Your task to perform on an android device: Clear the cart on walmart. Search for "bose soundlink mini" on walmart, select the first entry, and add it to the cart. Image 0: 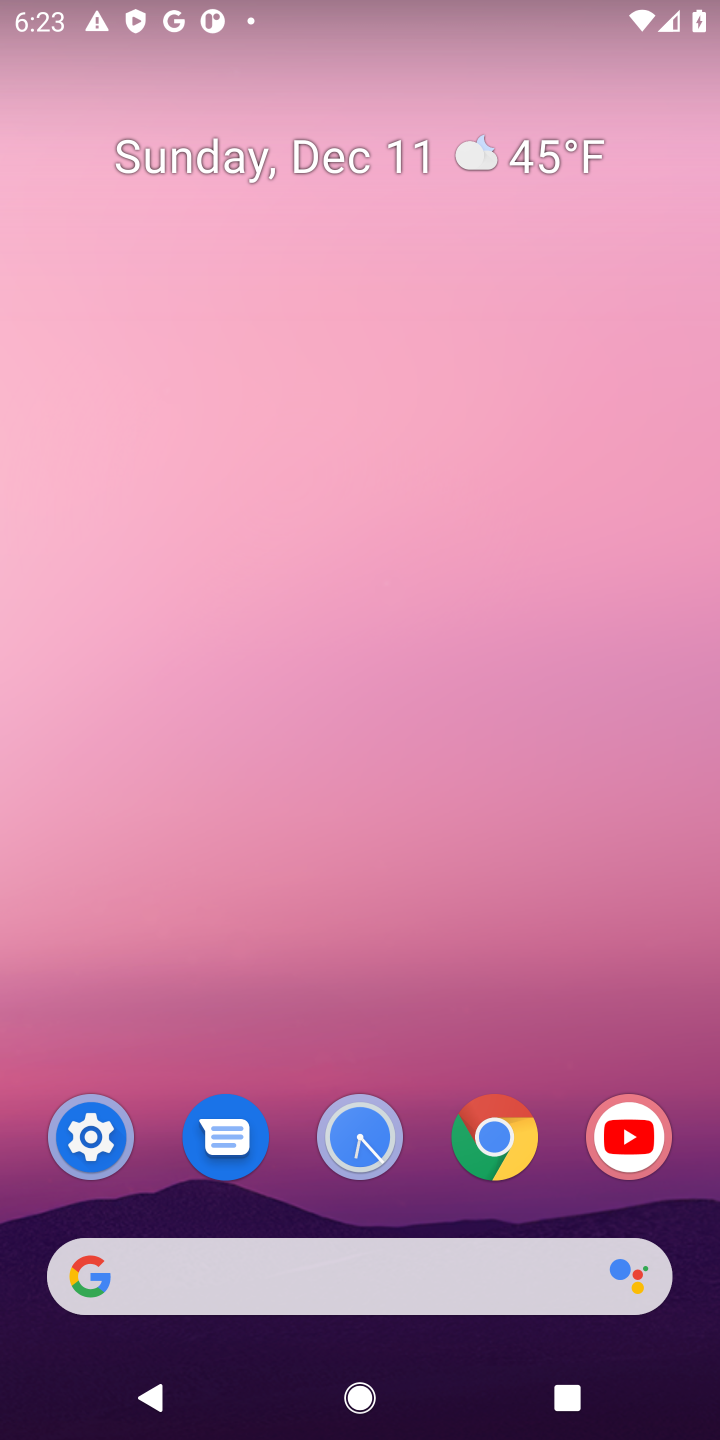
Step 0: click (505, 1153)
Your task to perform on an android device: Clear the cart on walmart. Search for "bose soundlink mini" on walmart, select the first entry, and add it to the cart. Image 1: 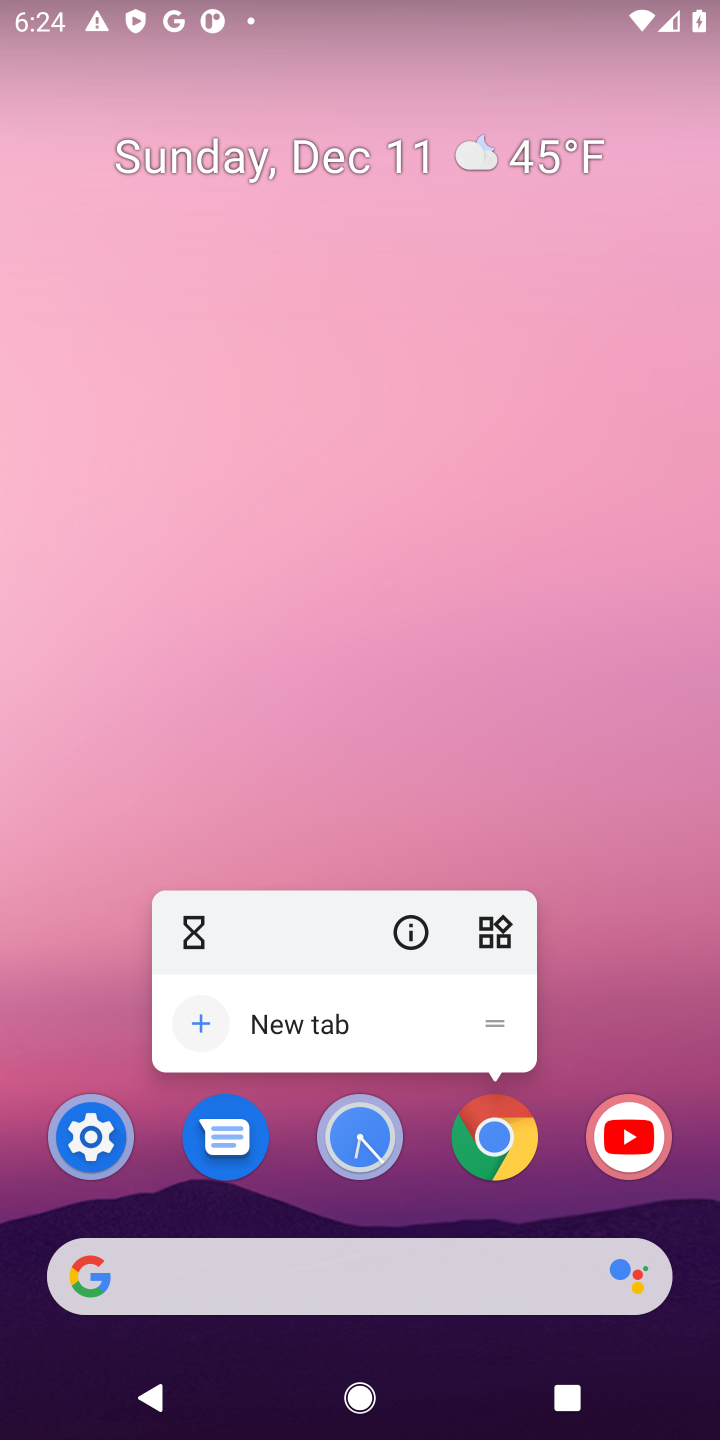
Step 1: click (487, 1138)
Your task to perform on an android device: Clear the cart on walmart. Search for "bose soundlink mini" on walmart, select the first entry, and add it to the cart. Image 2: 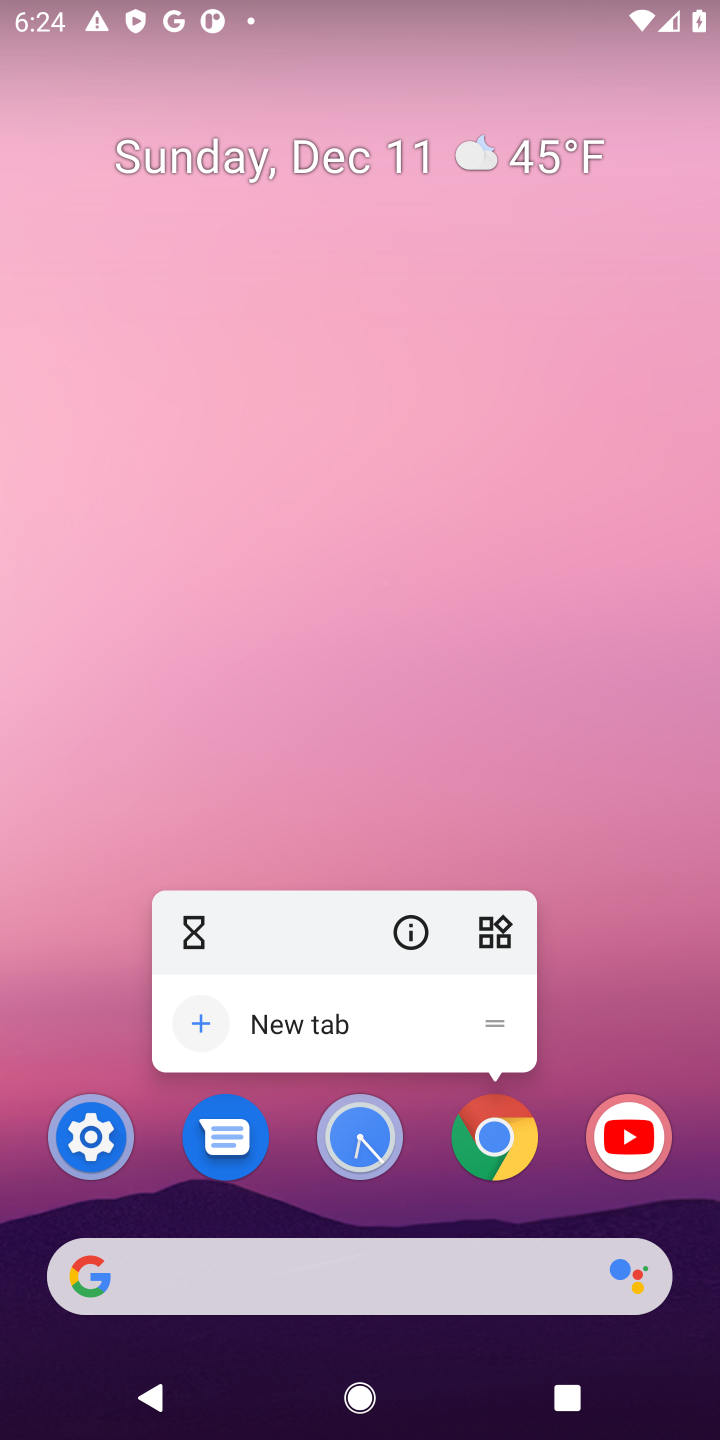
Step 2: click (500, 1138)
Your task to perform on an android device: Clear the cart on walmart. Search for "bose soundlink mini" on walmart, select the first entry, and add it to the cart. Image 3: 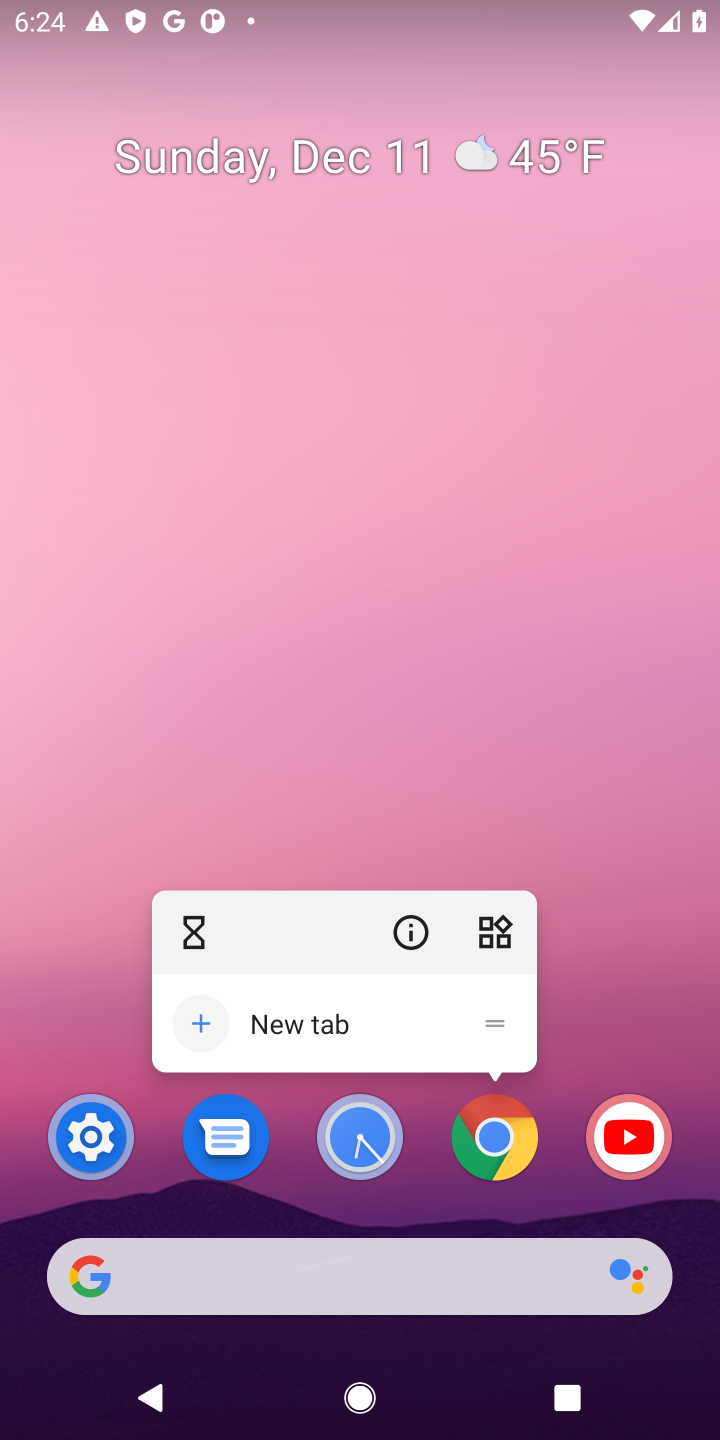
Step 3: click (500, 1138)
Your task to perform on an android device: Clear the cart on walmart. Search for "bose soundlink mini" on walmart, select the first entry, and add it to the cart. Image 4: 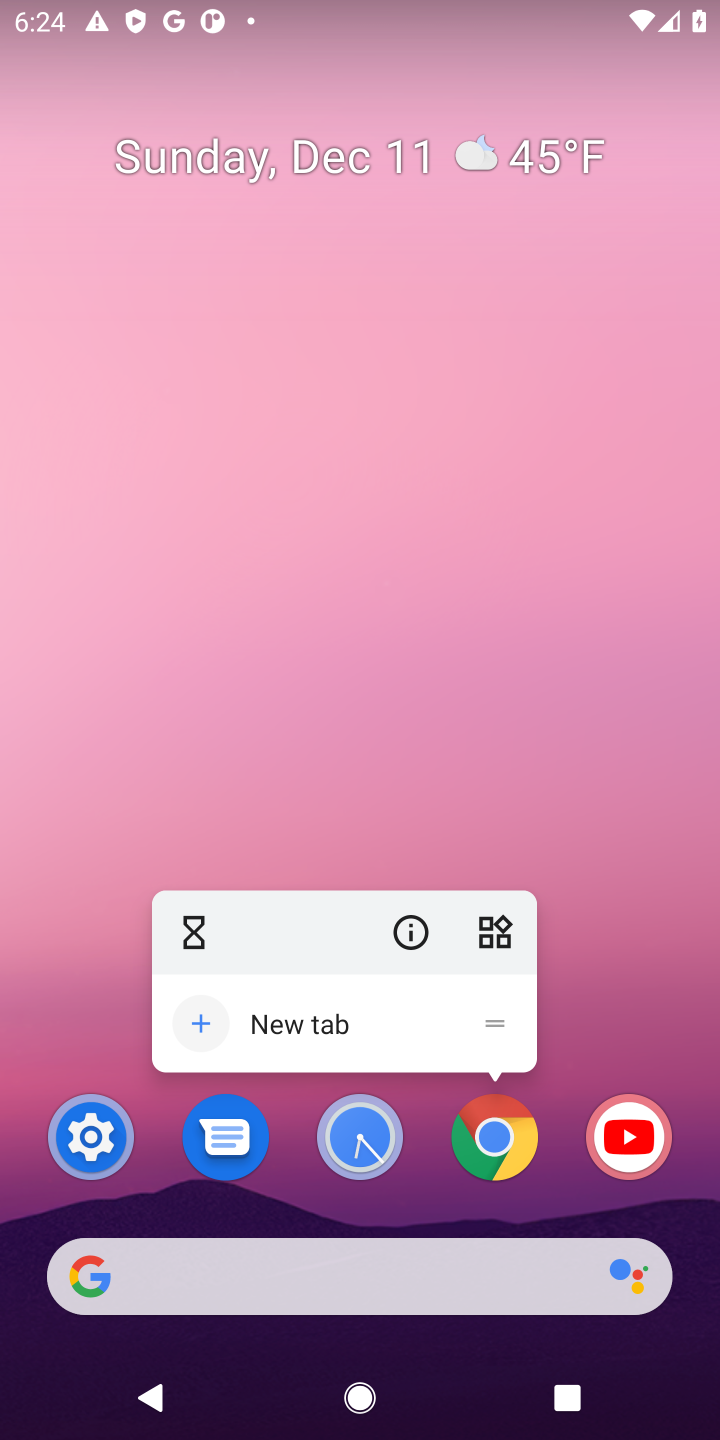
Step 4: click (493, 1143)
Your task to perform on an android device: Clear the cart on walmart. Search for "bose soundlink mini" on walmart, select the first entry, and add it to the cart. Image 5: 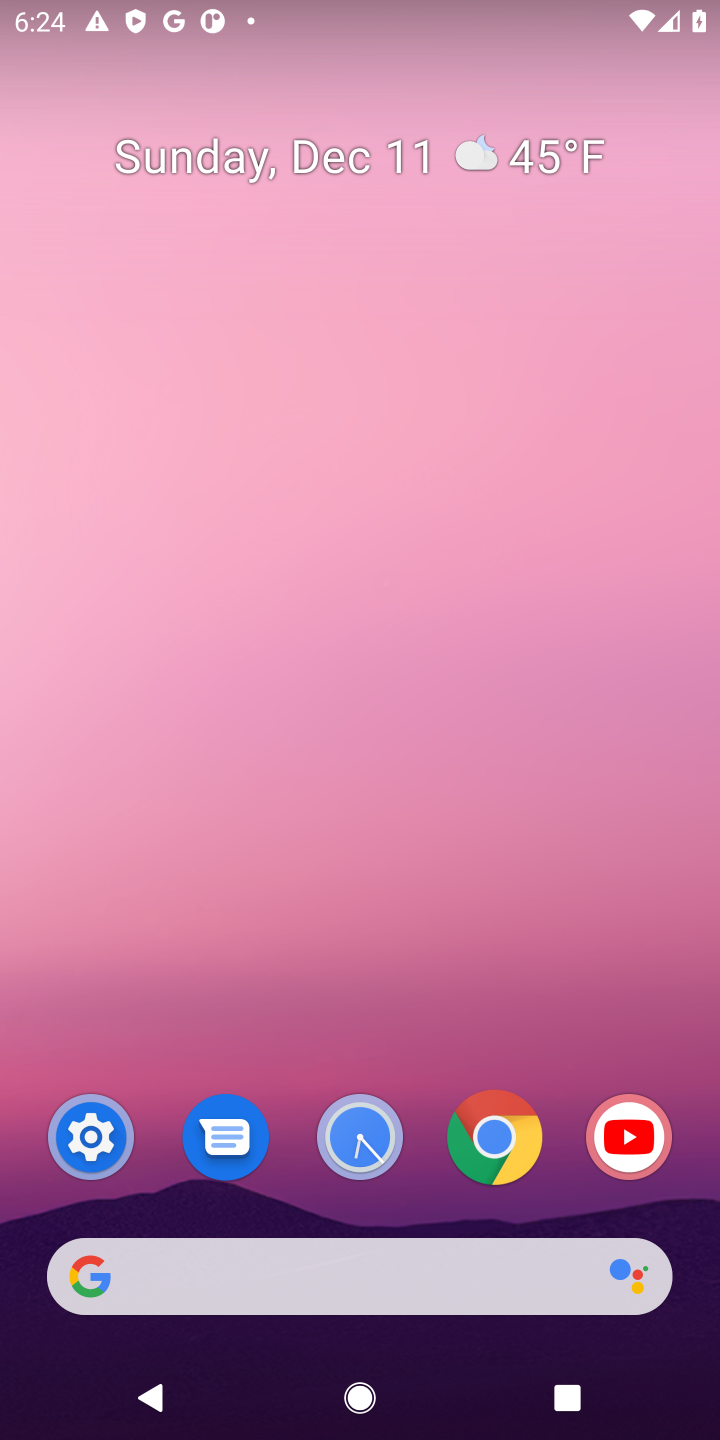
Step 5: click (493, 1143)
Your task to perform on an android device: Clear the cart on walmart. Search for "bose soundlink mini" on walmart, select the first entry, and add it to the cart. Image 6: 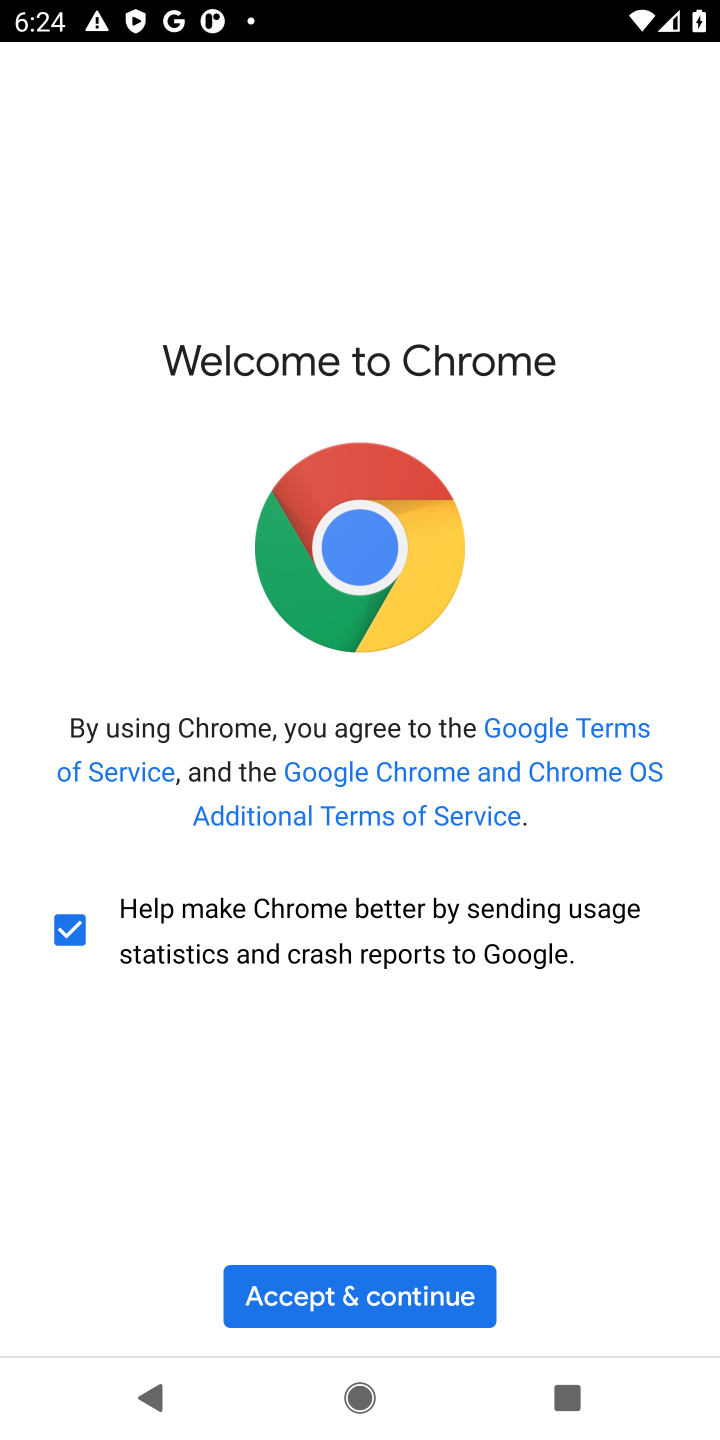
Step 6: click (357, 1289)
Your task to perform on an android device: Clear the cart on walmart. Search for "bose soundlink mini" on walmart, select the first entry, and add it to the cart. Image 7: 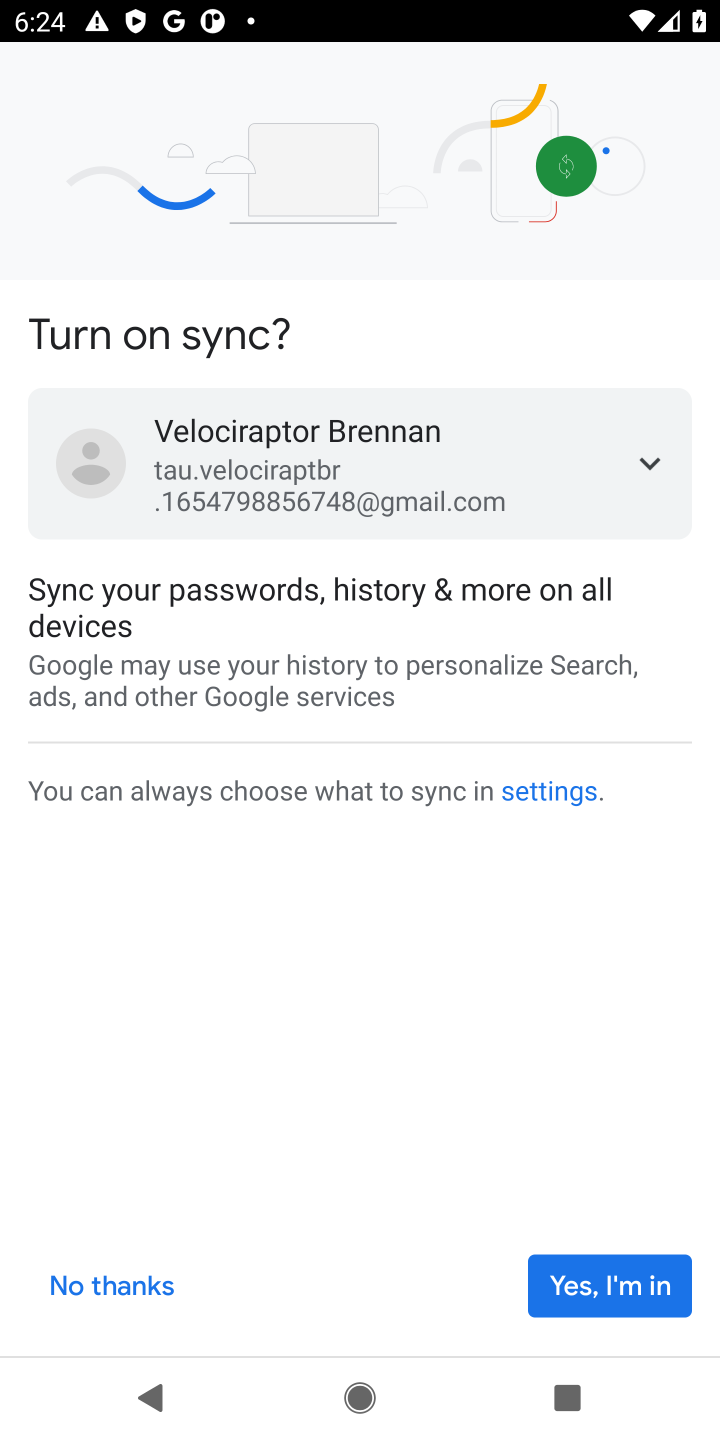
Step 7: click (612, 1268)
Your task to perform on an android device: Clear the cart on walmart. Search for "bose soundlink mini" on walmart, select the first entry, and add it to the cart. Image 8: 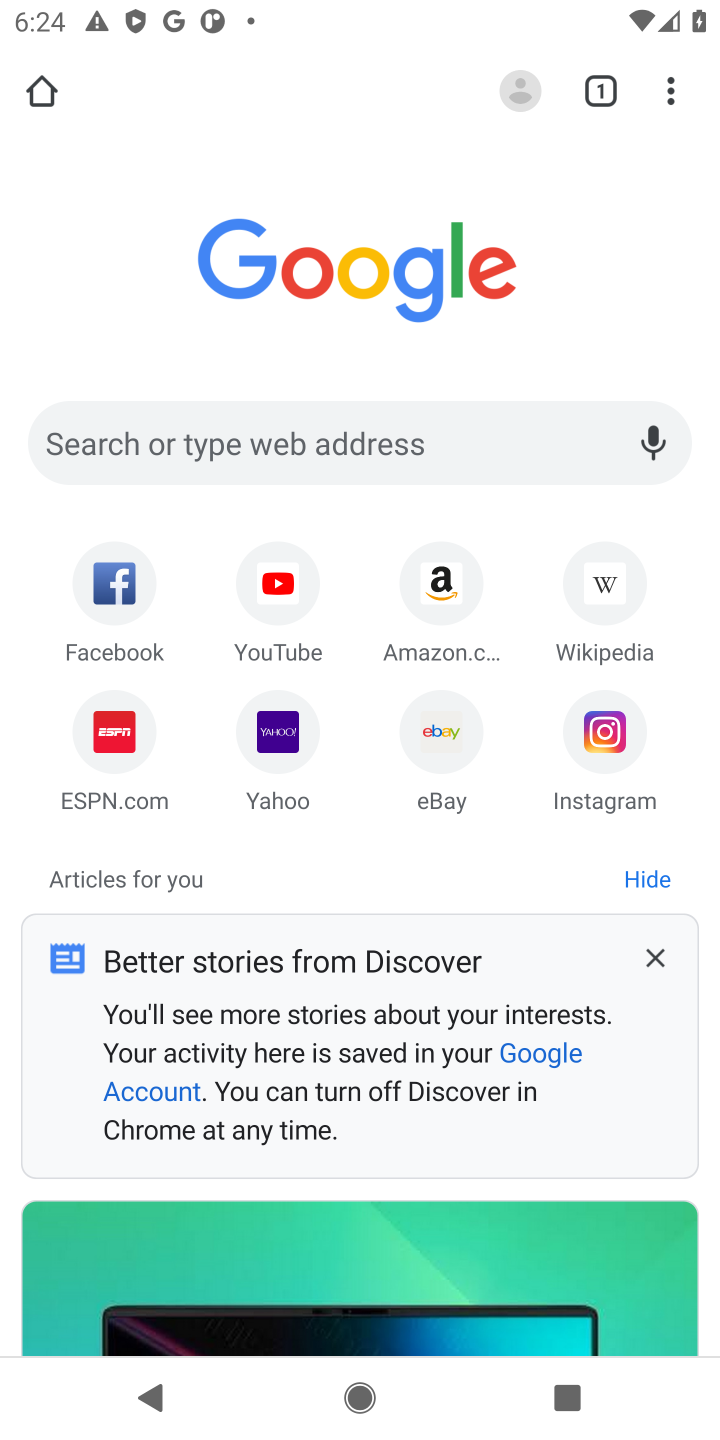
Step 8: click (419, 429)
Your task to perform on an android device: Clear the cart on walmart. Search for "bose soundlink mini" on walmart, select the first entry, and add it to the cart. Image 9: 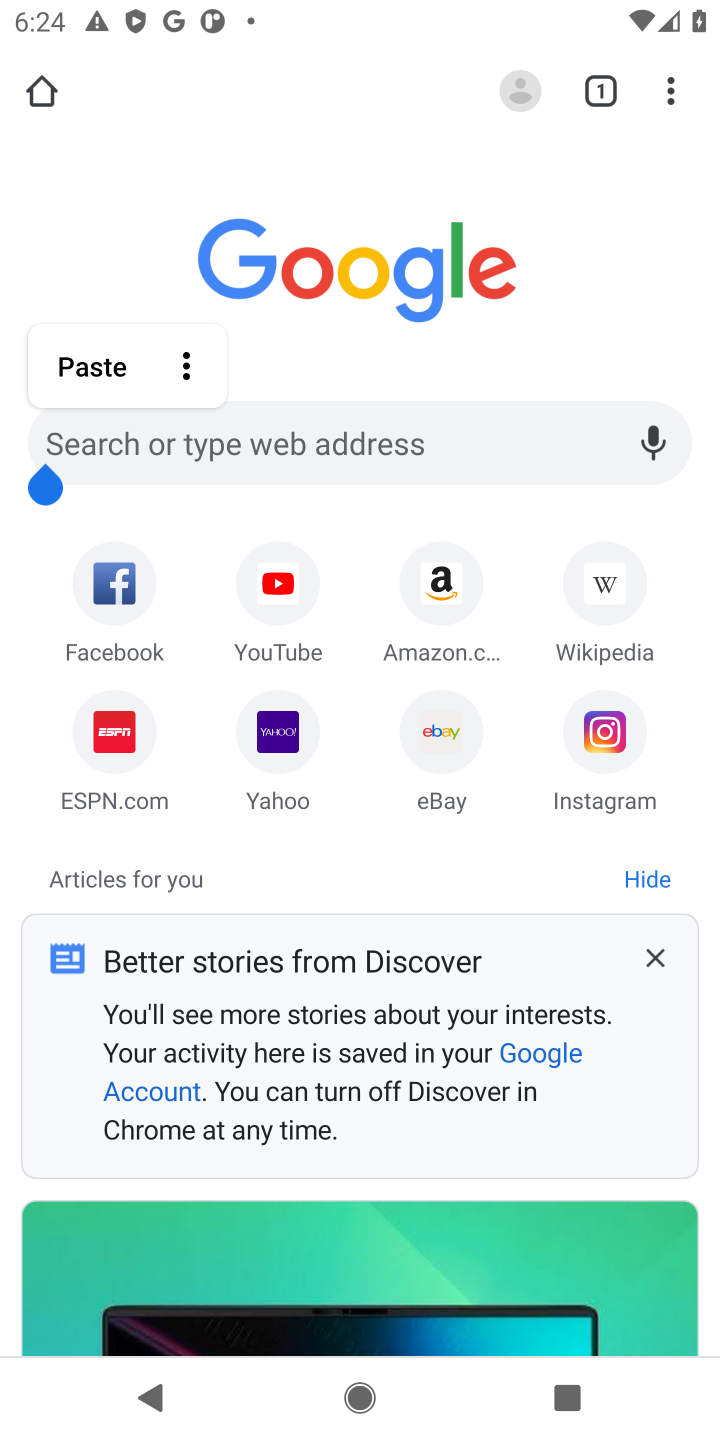
Step 9: click (420, 432)
Your task to perform on an android device: Clear the cart on walmart. Search for "bose soundlink mini" on walmart, select the first entry, and add it to the cart. Image 10: 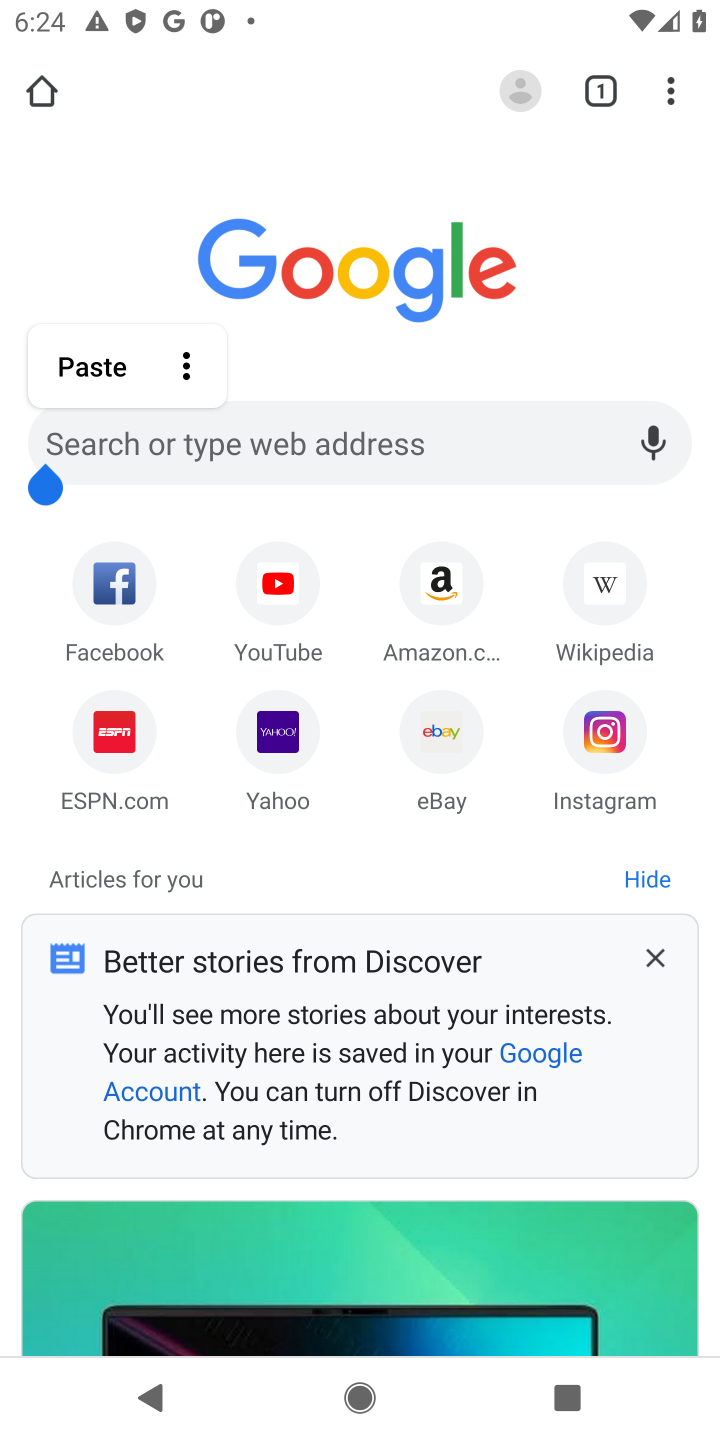
Step 10: click (424, 448)
Your task to perform on an android device: Clear the cart on walmart. Search for "bose soundlink mini" on walmart, select the first entry, and add it to the cart. Image 11: 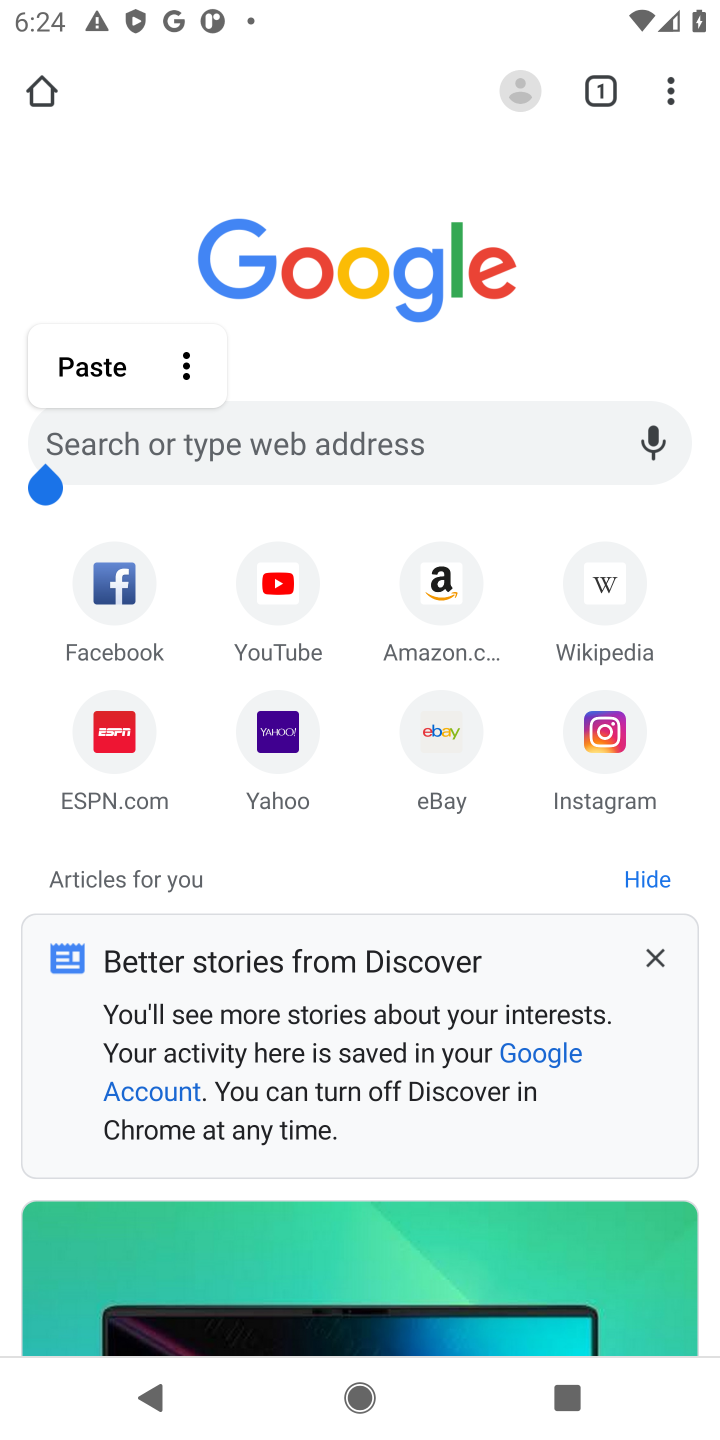
Step 11: click (307, 451)
Your task to perform on an android device: Clear the cart on walmart. Search for "bose soundlink mini" on walmart, select the first entry, and add it to the cart. Image 12: 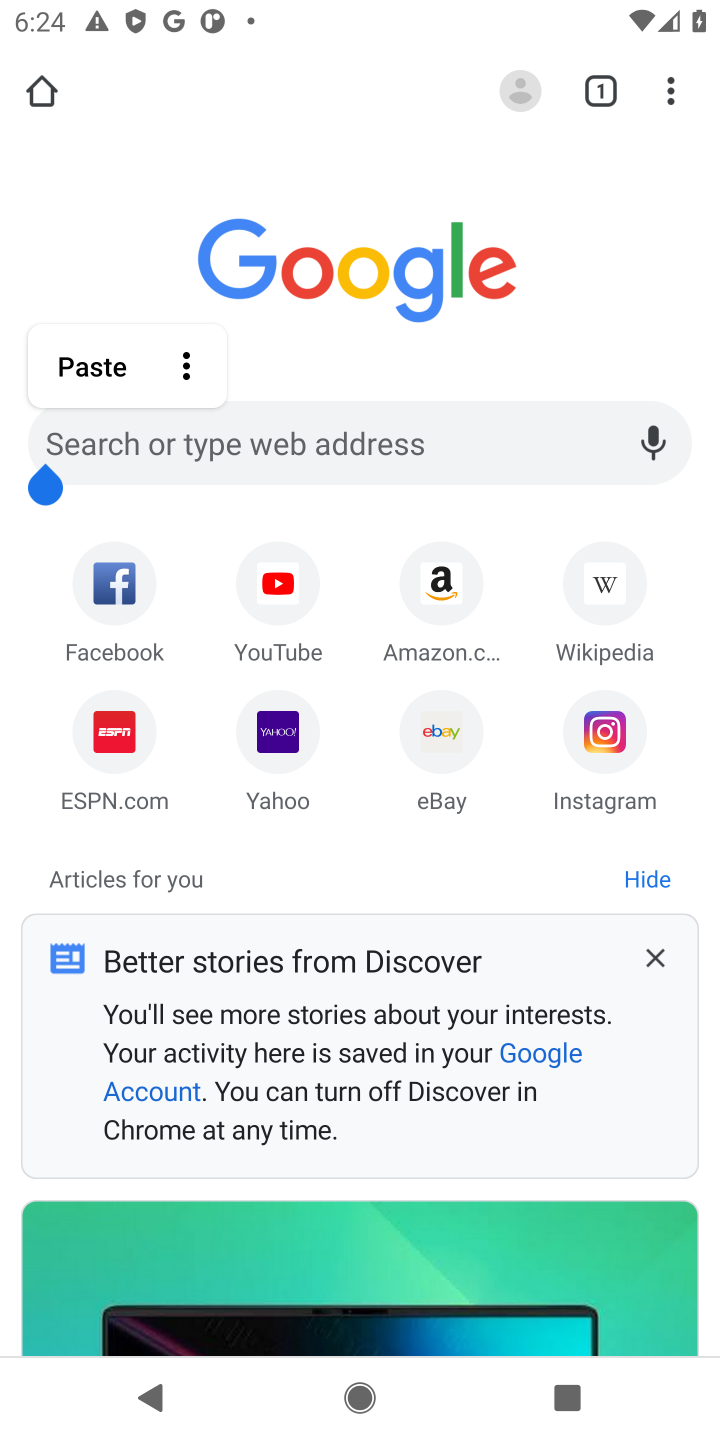
Step 12: click (307, 451)
Your task to perform on an android device: Clear the cart on walmart. Search for "bose soundlink mini" on walmart, select the first entry, and add it to the cart. Image 13: 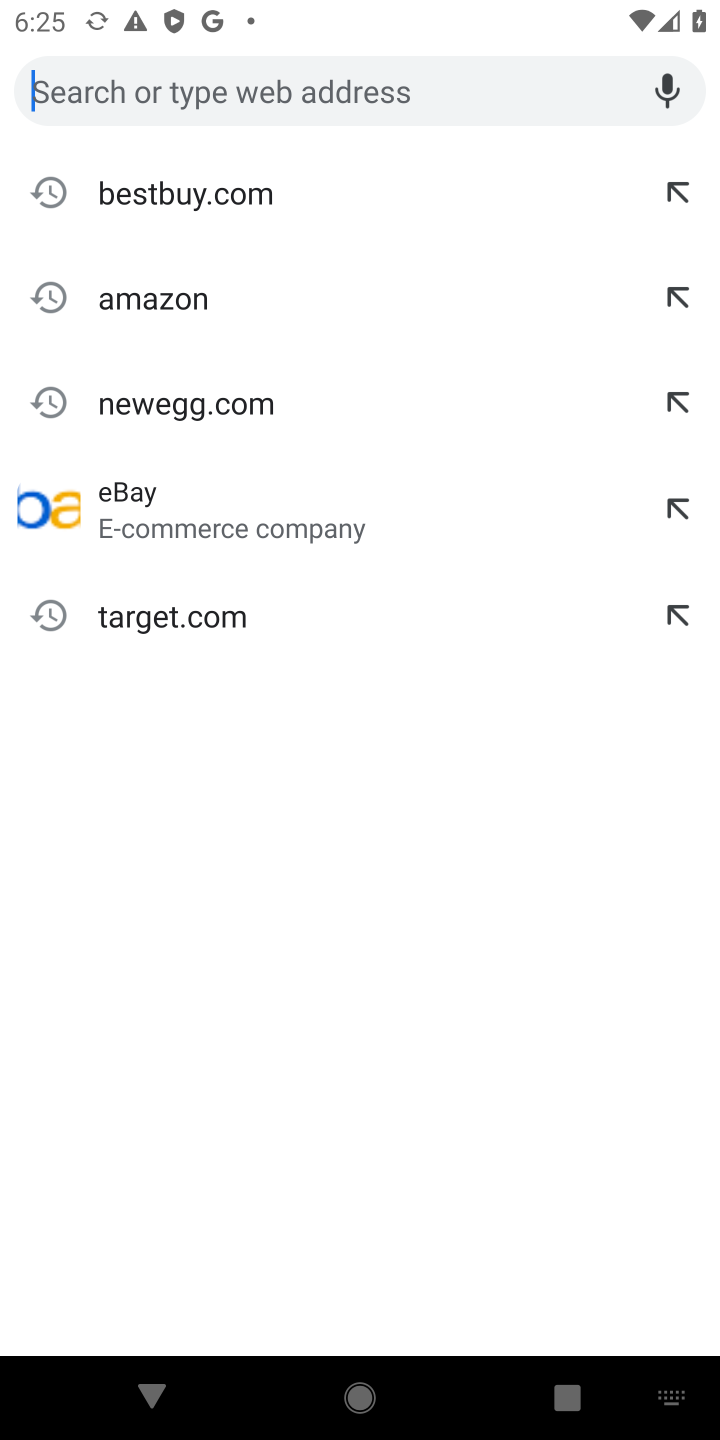
Step 13: type "walmart"
Your task to perform on an android device: Clear the cart on walmart. Search for "bose soundlink mini" on walmart, select the first entry, and add it to the cart. Image 14: 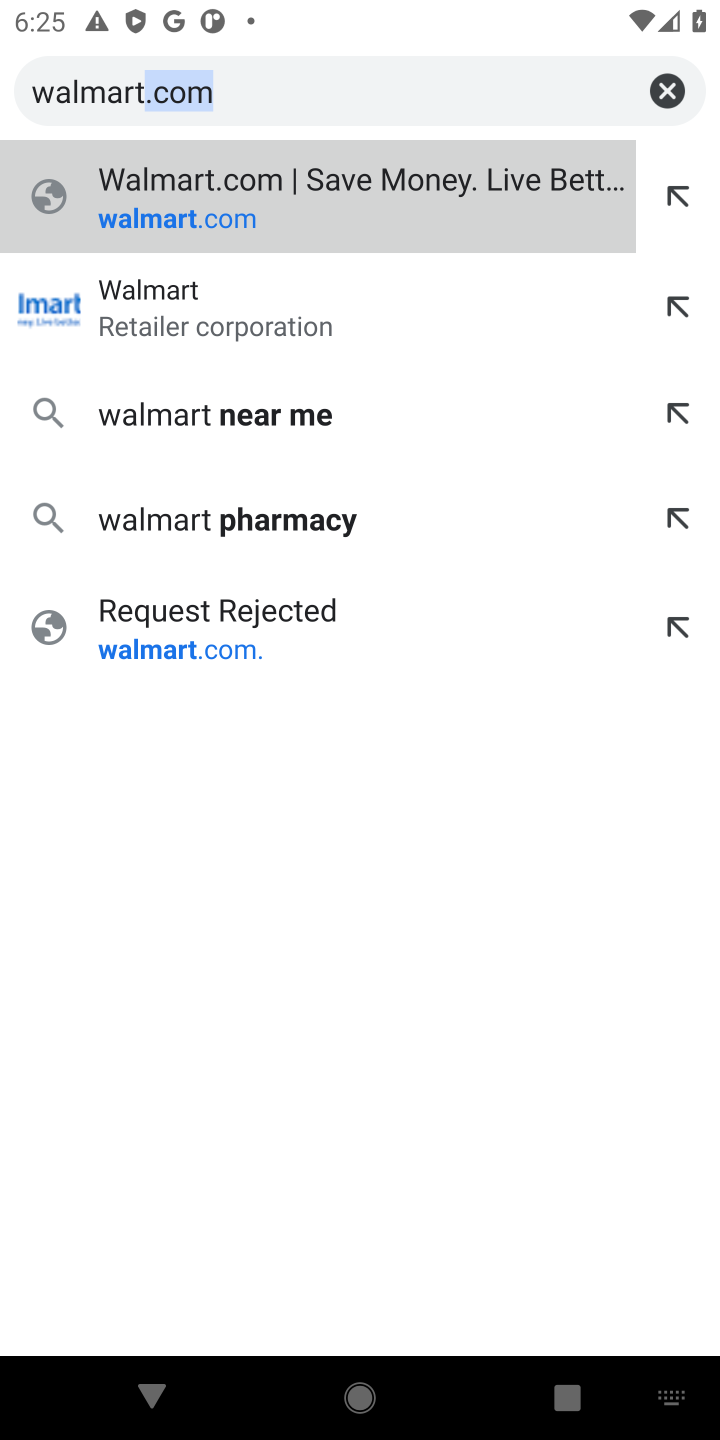
Step 14: type ""
Your task to perform on an android device: Clear the cart on walmart. Search for "bose soundlink mini" on walmart, select the first entry, and add it to the cart. Image 15: 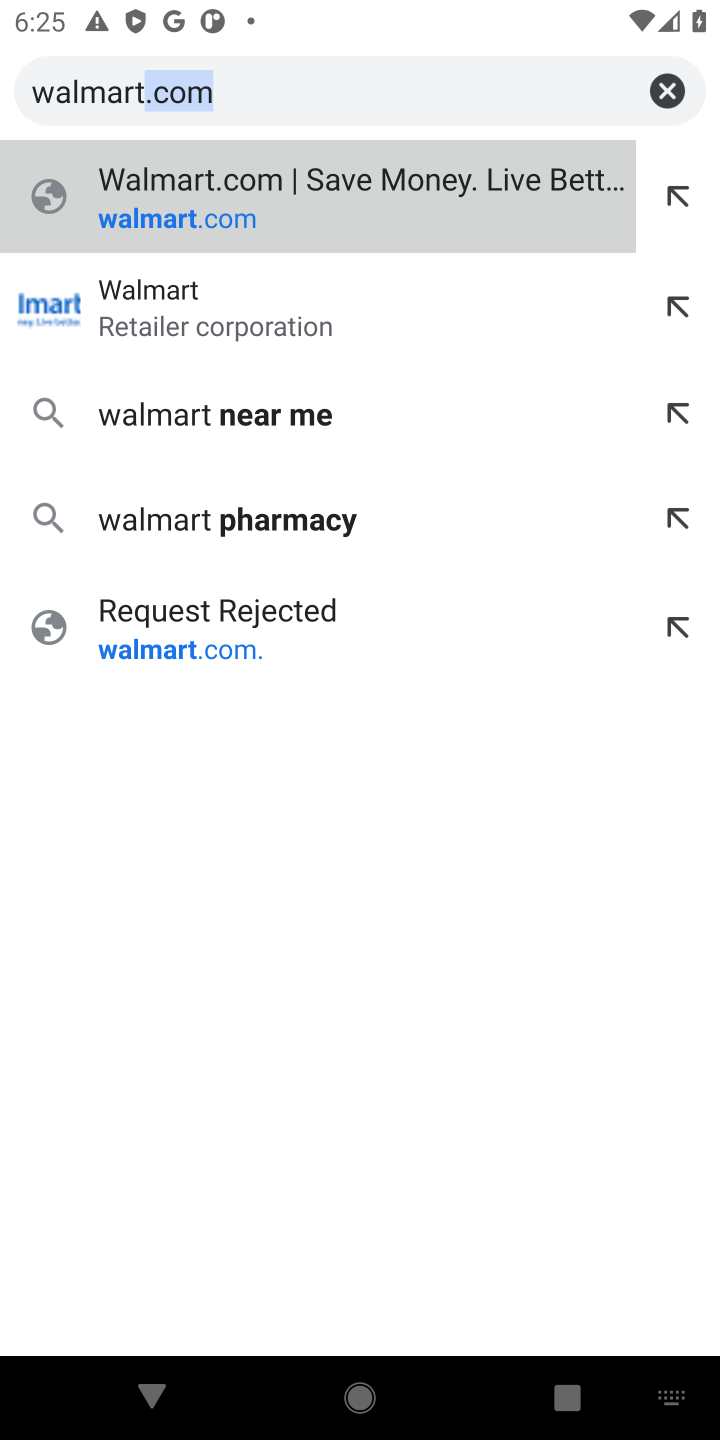
Step 15: click (253, 222)
Your task to perform on an android device: Clear the cart on walmart. Search for "bose soundlink mini" on walmart, select the first entry, and add it to the cart. Image 16: 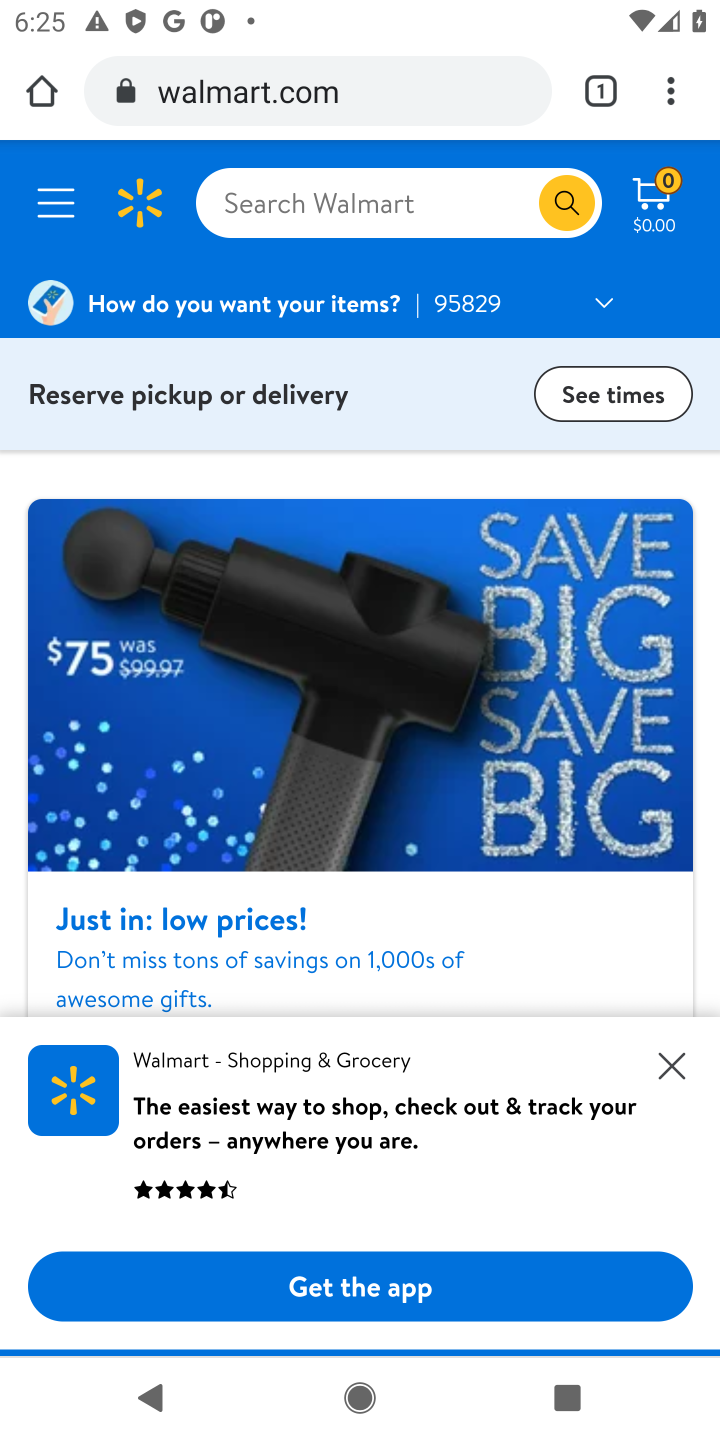
Step 16: click (665, 174)
Your task to perform on an android device: Clear the cart on walmart. Search for "bose soundlink mini" on walmart, select the first entry, and add it to the cart. Image 17: 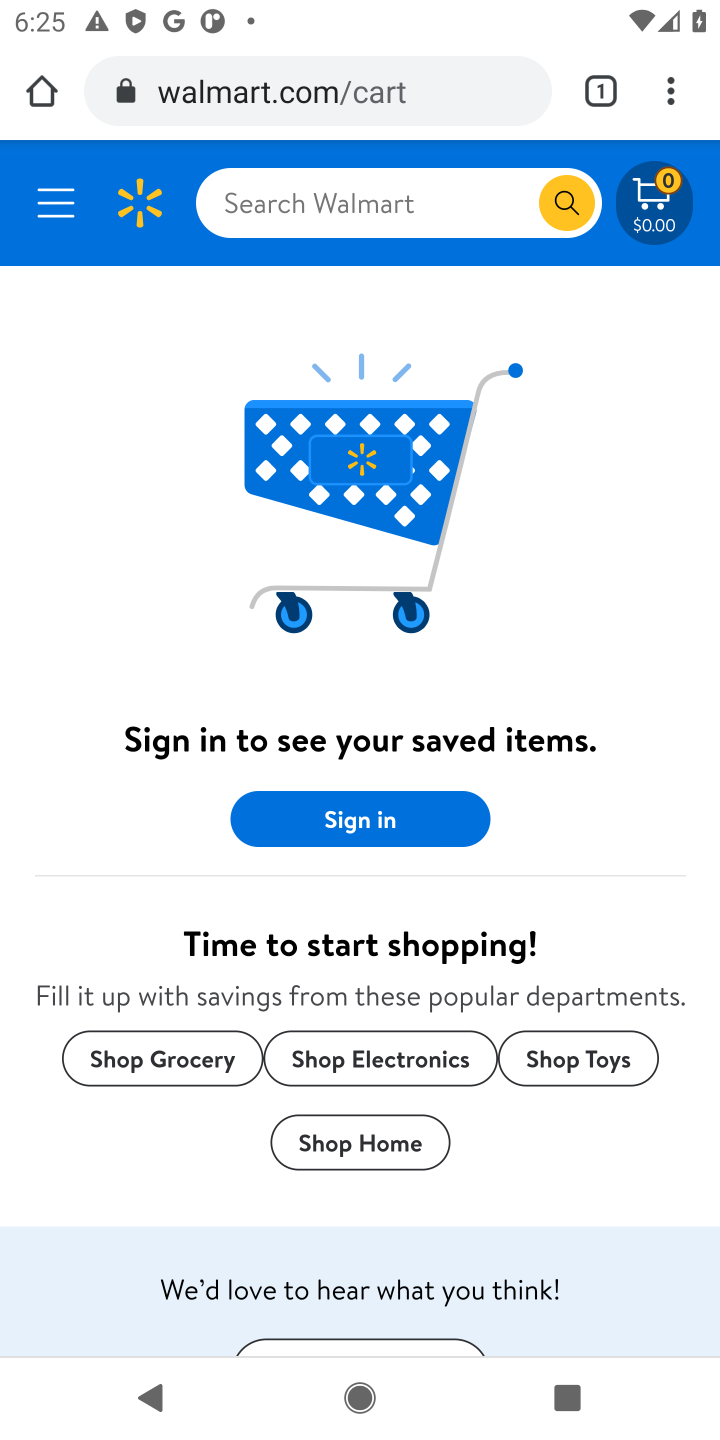
Step 17: click (347, 187)
Your task to perform on an android device: Clear the cart on walmart. Search for "bose soundlink mini" on walmart, select the first entry, and add it to the cart. Image 18: 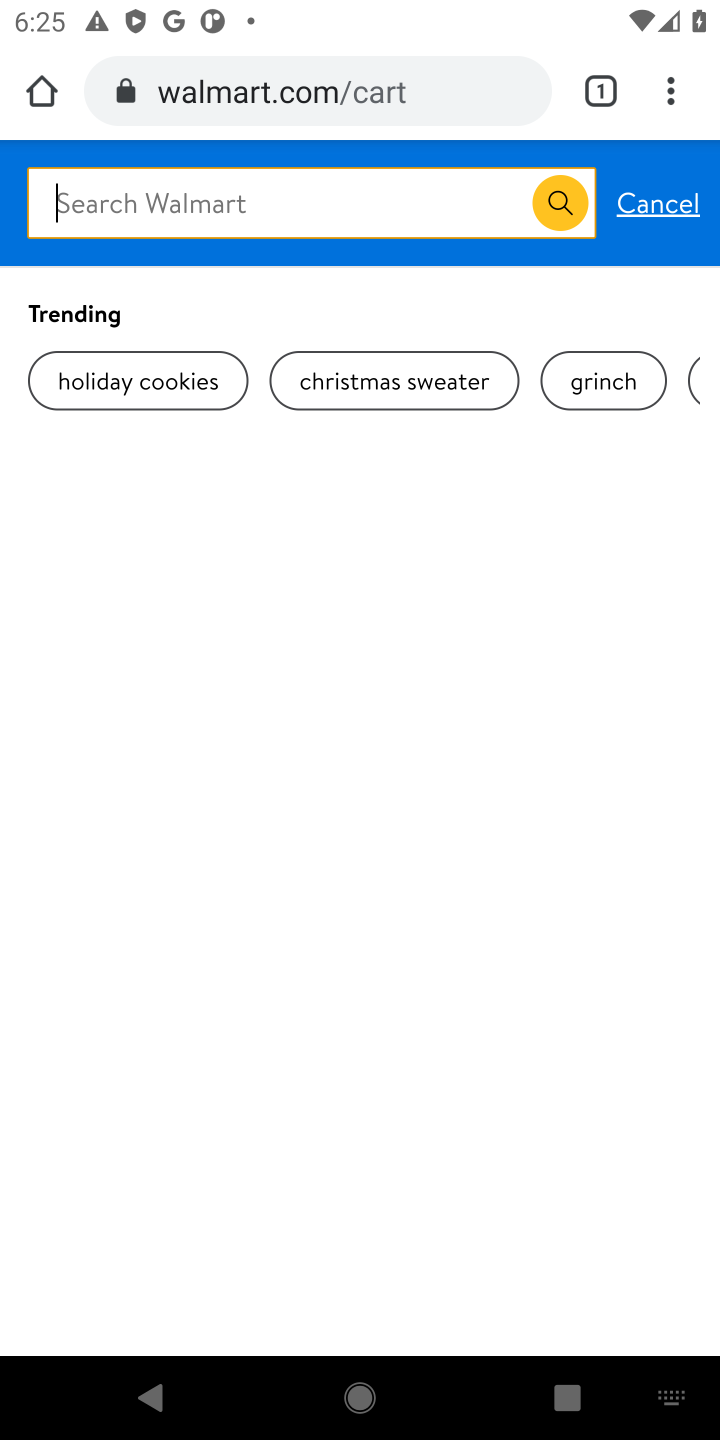
Step 18: type "bose soundlink mini"
Your task to perform on an android device: Clear the cart on walmart. Search for "bose soundlink mini" on walmart, select the first entry, and add it to the cart. Image 19: 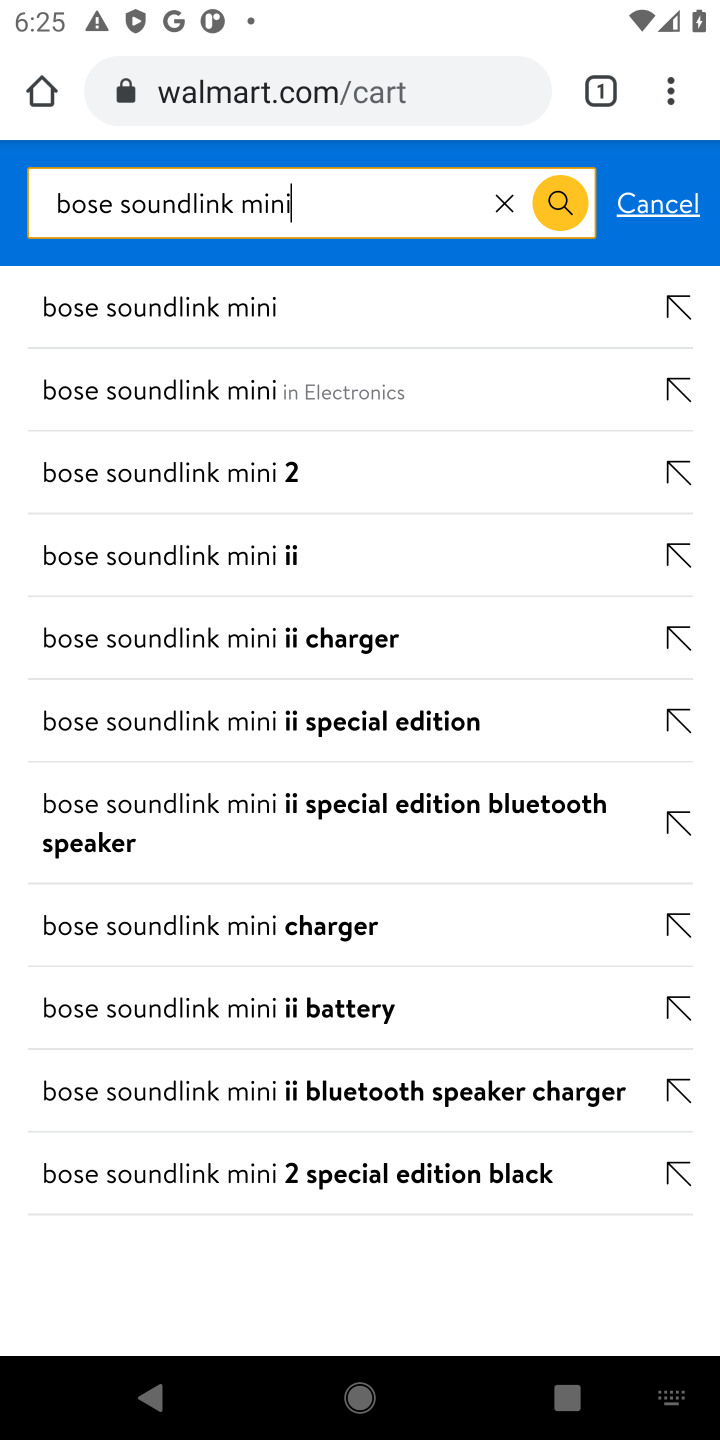
Step 19: click (518, 318)
Your task to perform on an android device: Clear the cart on walmart. Search for "bose soundlink mini" on walmart, select the first entry, and add it to the cart. Image 20: 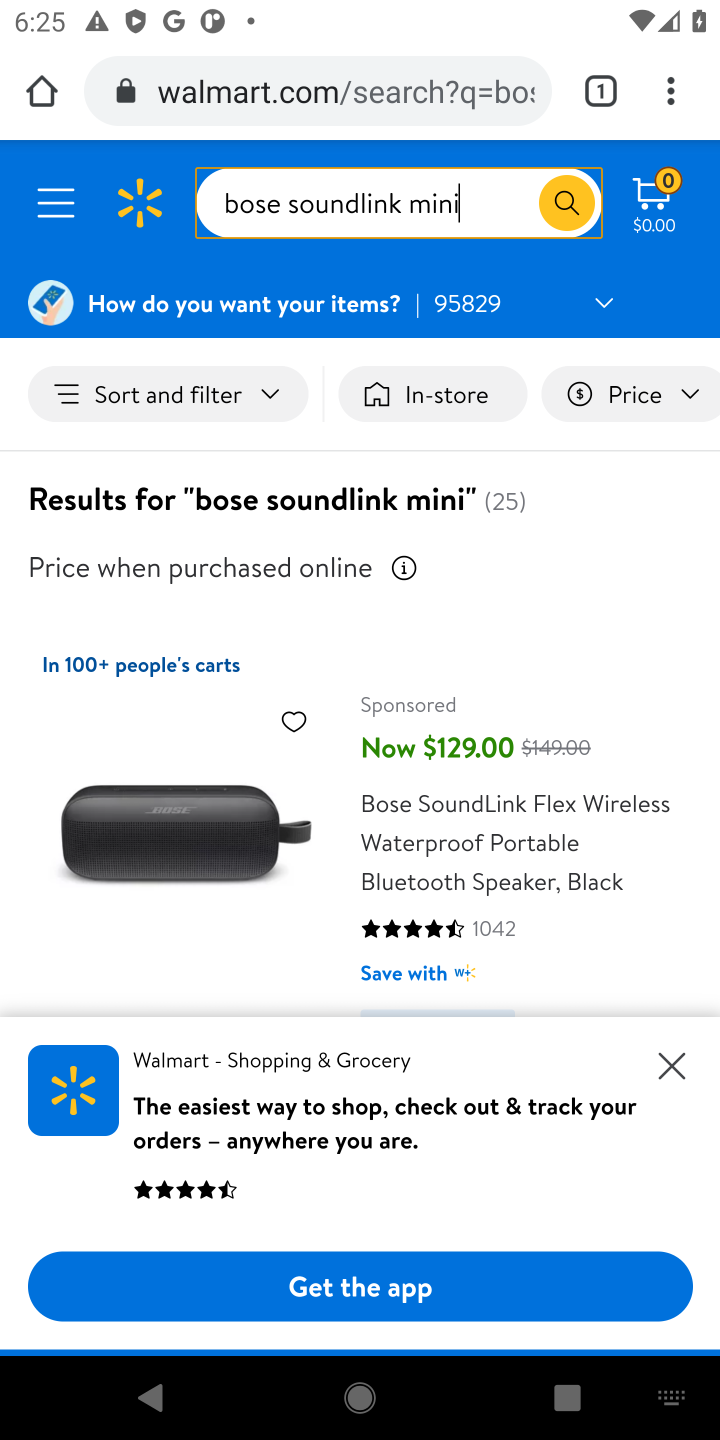
Step 20: drag from (430, 833) to (450, 438)
Your task to perform on an android device: Clear the cart on walmart. Search for "bose soundlink mini" on walmart, select the first entry, and add it to the cart. Image 21: 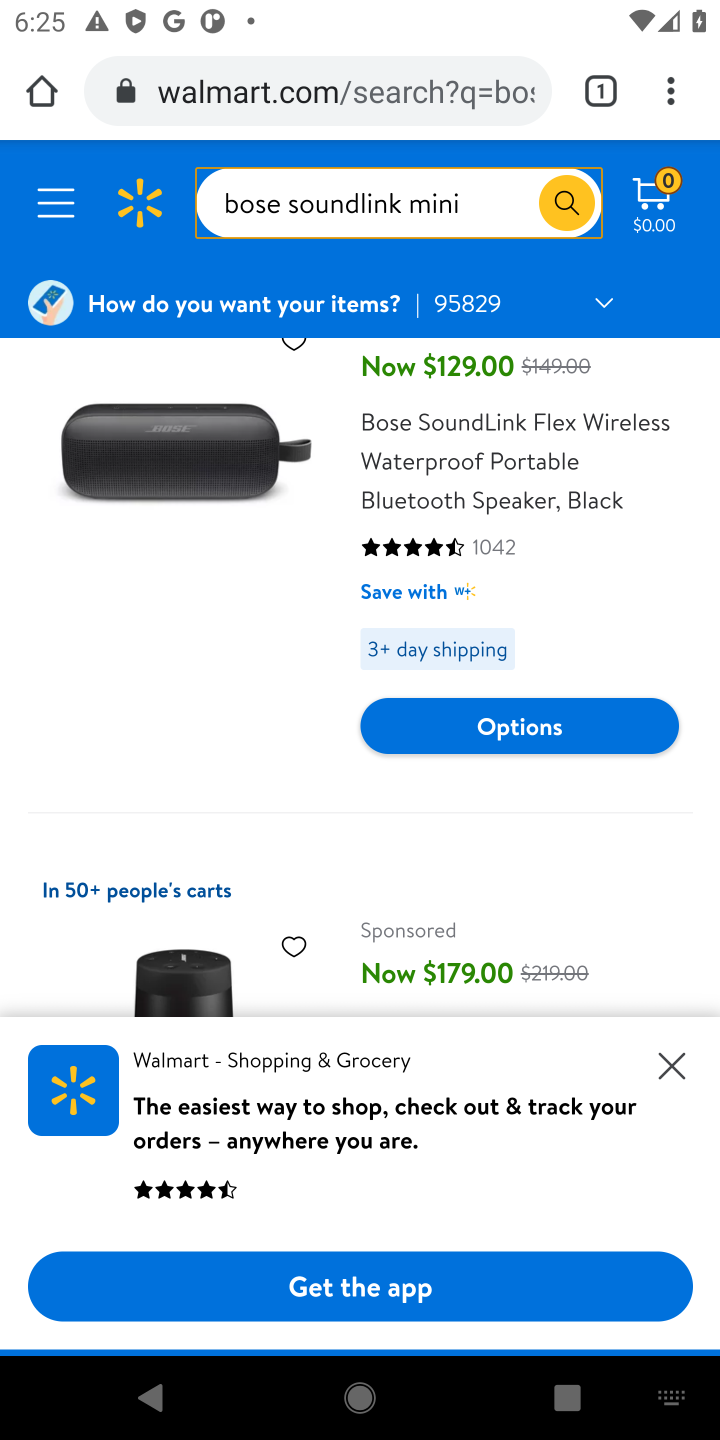
Step 21: drag from (409, 854) to (411, 502)
Your task to perform on an android device: Clear the cart on walmart. Search for "bose soundlink mini" on walmart, select the first entry, and add it to the cart. Image 22: 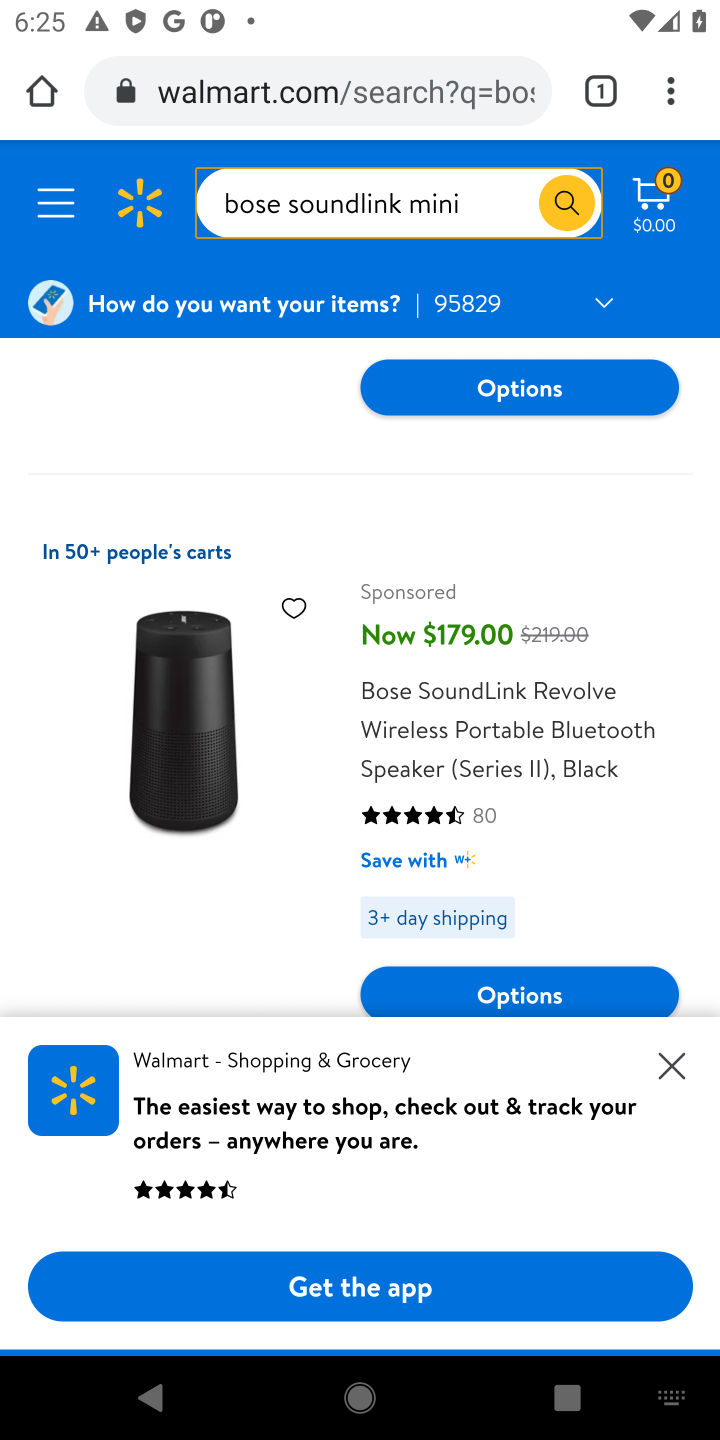
Step 22: click (542, 389)
Your task to perform on an android device: Clear the cart on walmart. Search for "bose soundlink mini" on walmart, select the first entry, and add it to the cart. Image 23: 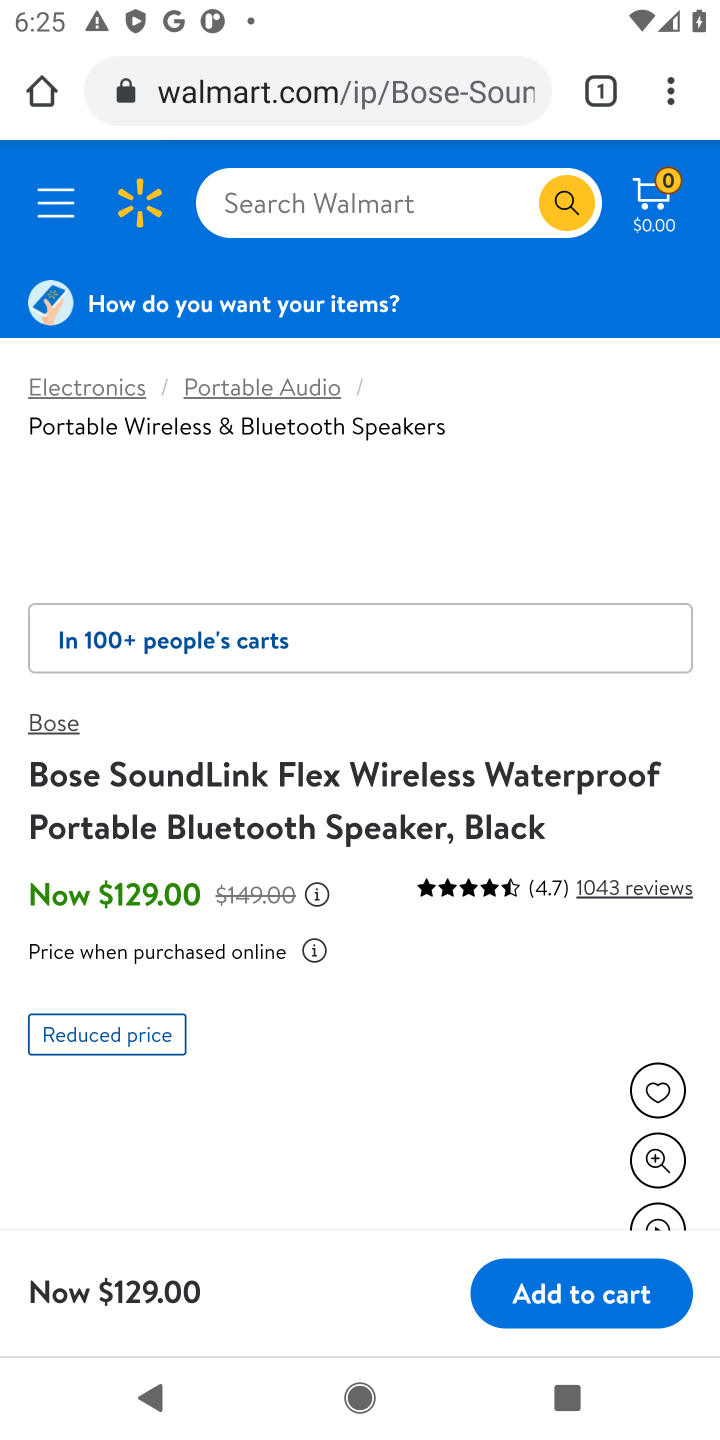
Step 23: click (567, 1293)
Your task to perform on an android device: Clear the cart on walmart. Search for "bose soundlink mini" on walmart, select the first entry, and add it to the cart. Image 24: 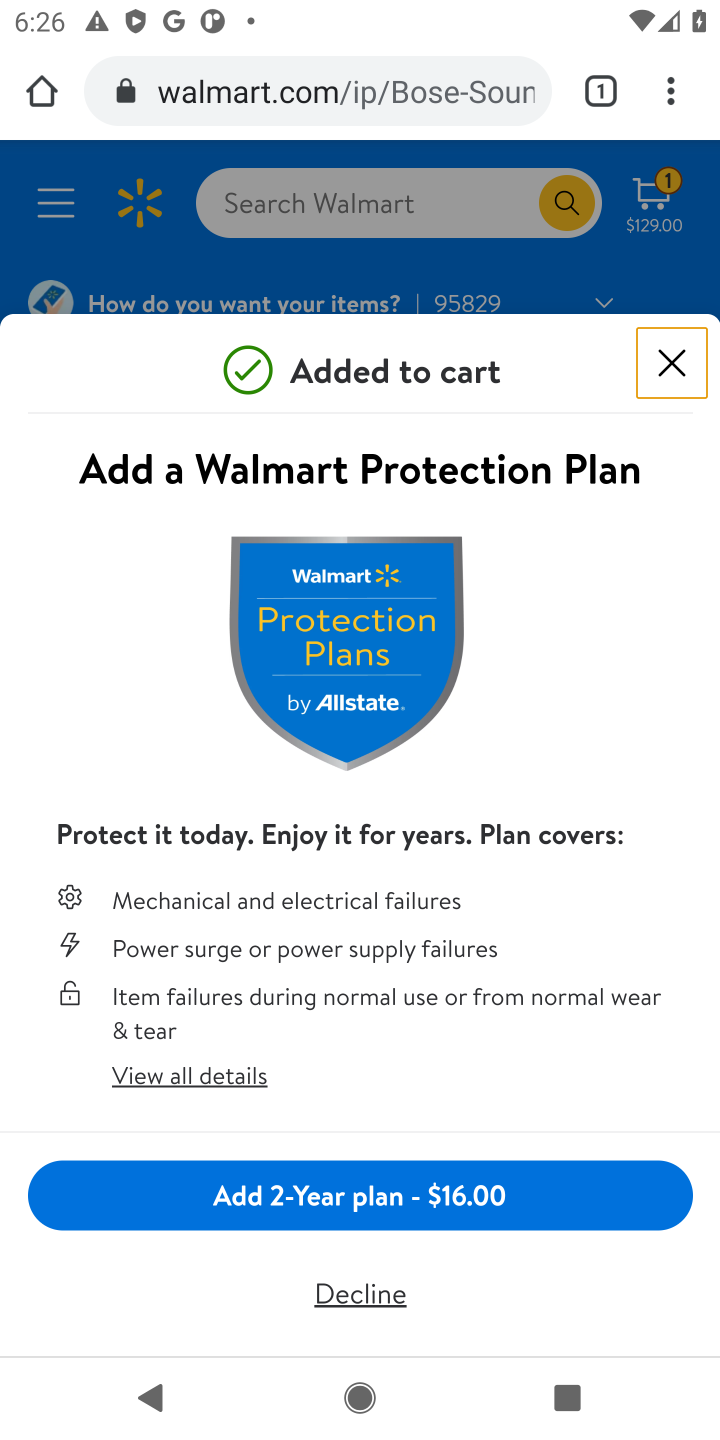
Step 24: task complete